Your task to perform on an android device: Is it going to rain today? Image 0: 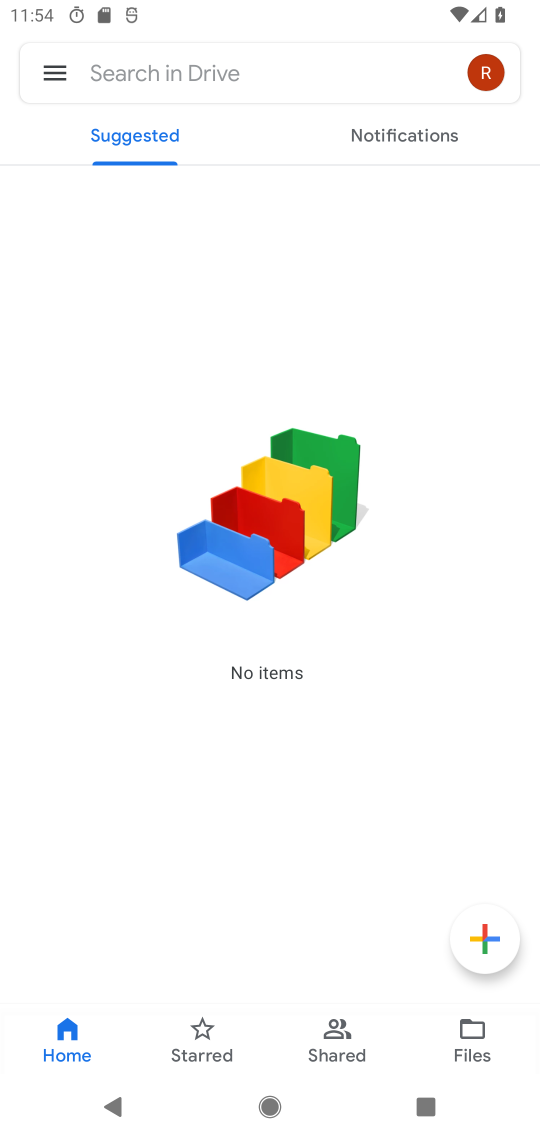
Step 0: press home button
Your task to perform on an android device: Is it going to rain today? Image 1: 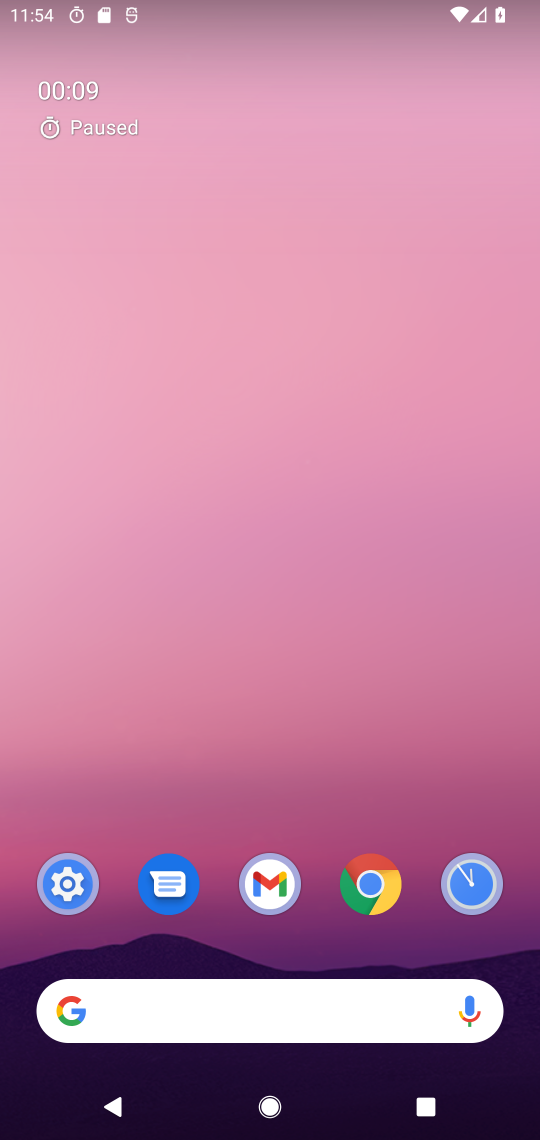
Step 1: click (242, 1012)
Your task to perform on an android device: Is it going to rain today? Image 2: 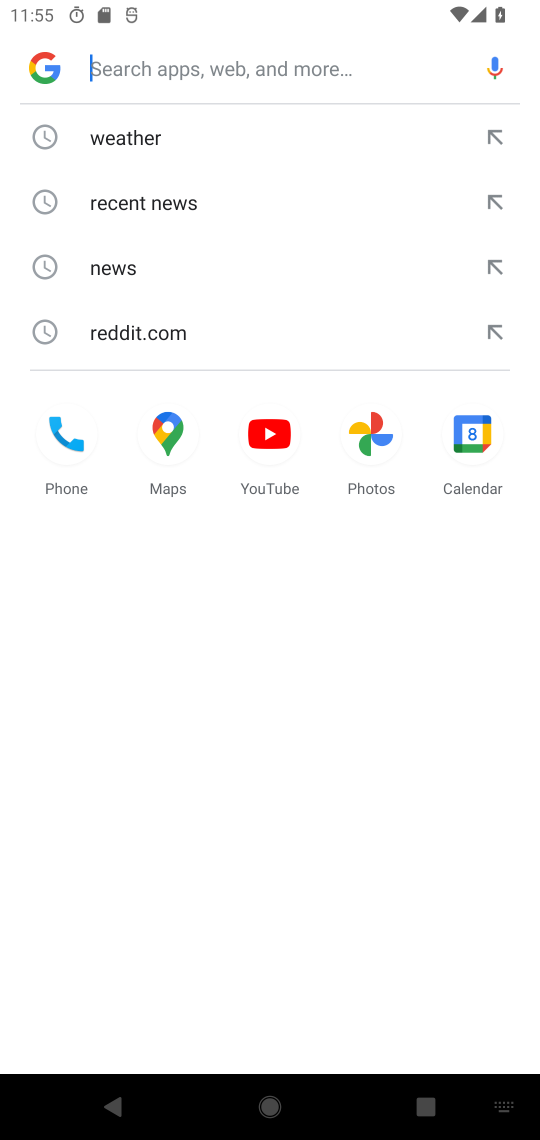
Step 2: type "rain today"
Your task to perform on an android device: Is it going to rain today? Image 3: 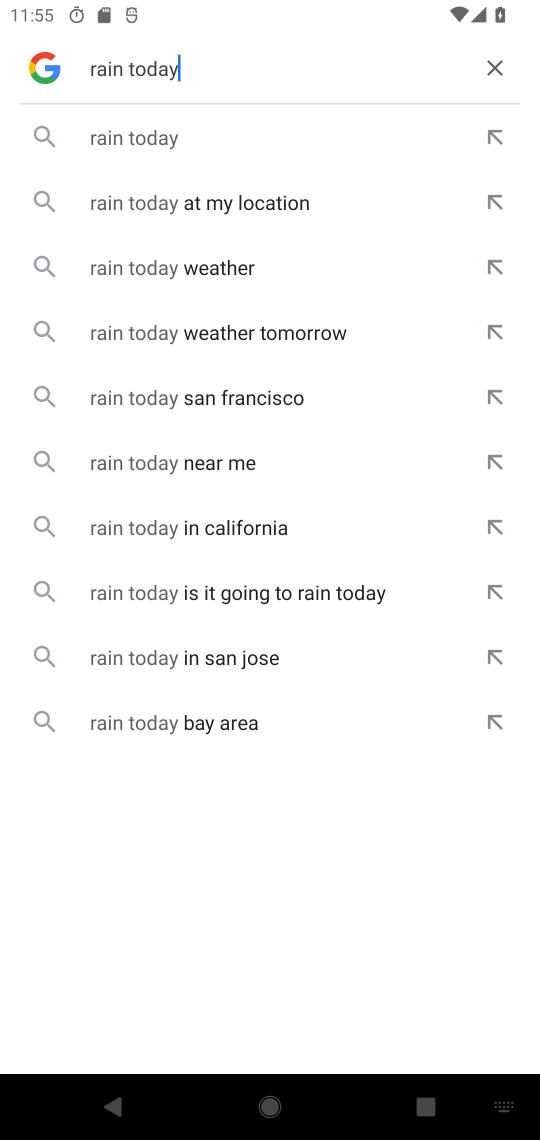
Step 3: click (140, 148)
Your task to perform on an android device: Is it going to rain today? Image 4: 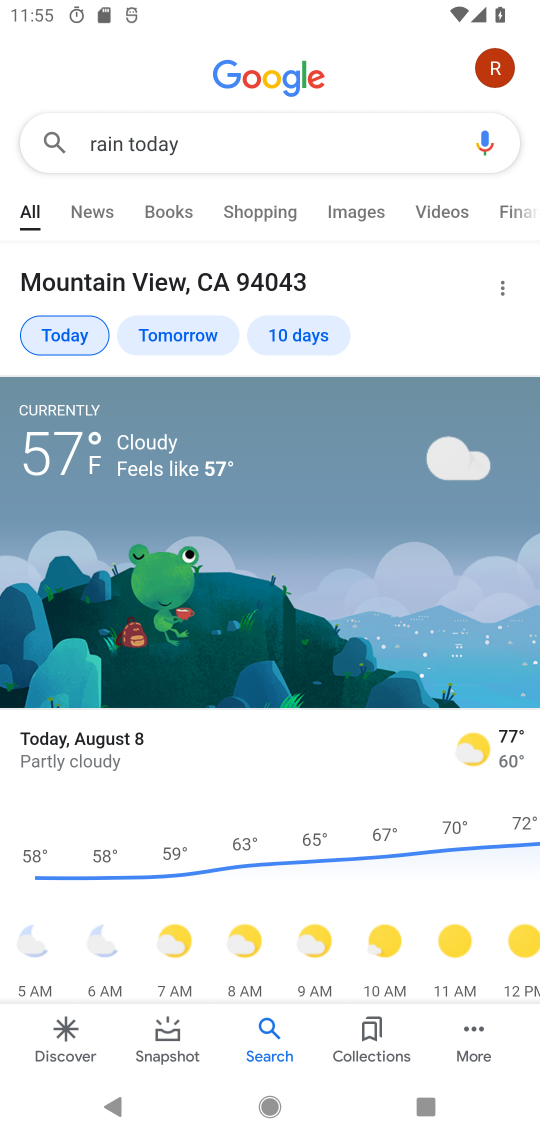
Step 4: task complete